Your task to perform on an android device: toggle translation in the chrome app Image 0: 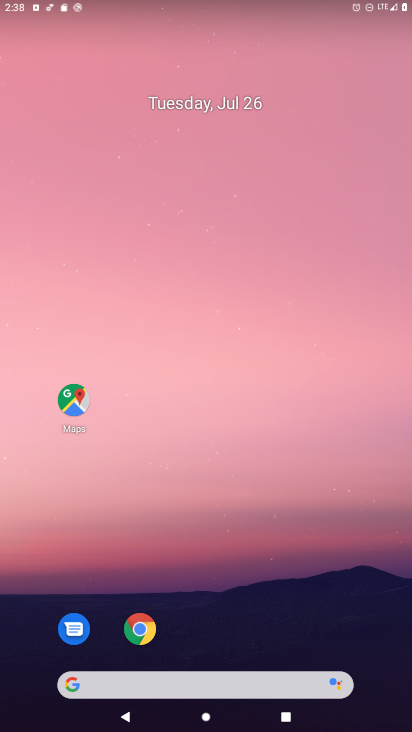
Step 0: click (140, 626)
Your task to perform on an android device: toggle translation in the chrome app Image 1: 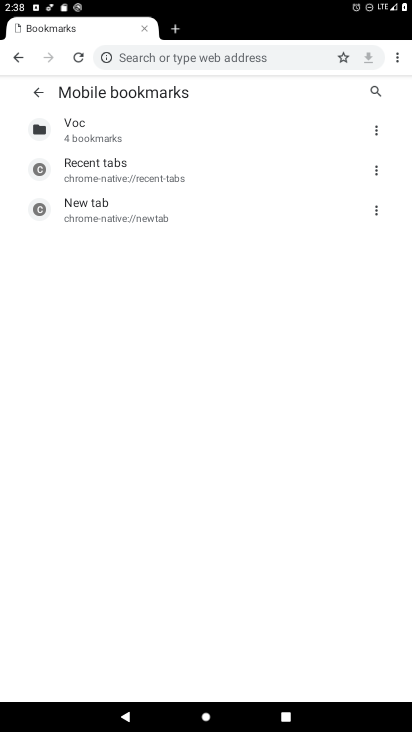
Step 1: click (397, 63)
Your task to perform on an android device: toggle translation in the chrome app Image 2: 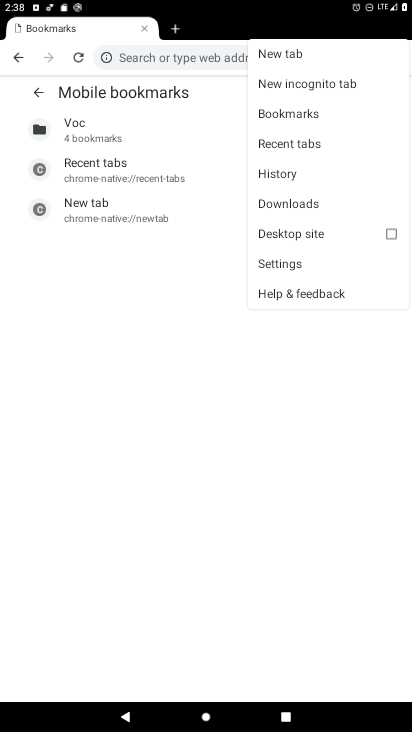
Step 2: click (284, 257)
Your task to perform on an android device: toggle translation in the chrome app Image 3: 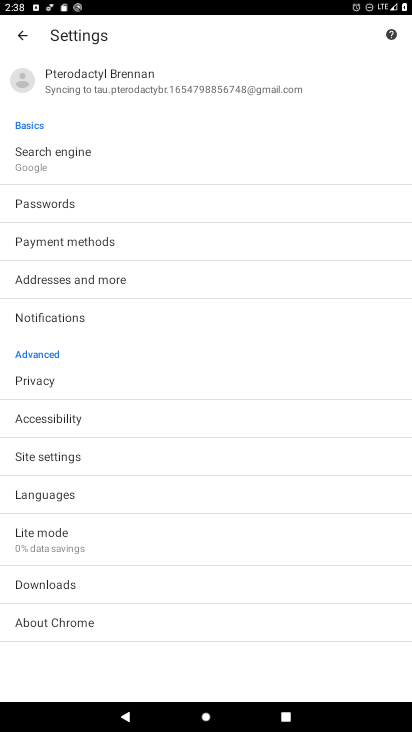
Step 3: click (47, 498)
Your task to perform on an android device: toggle translation in the chrome app Image 4: 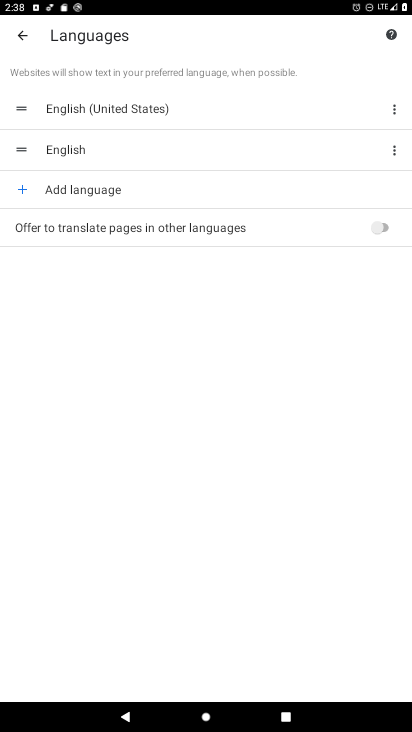
Step 4: click (385, 226)
Your task to perform on an android device: toggle translation in the chrome app Image 5: 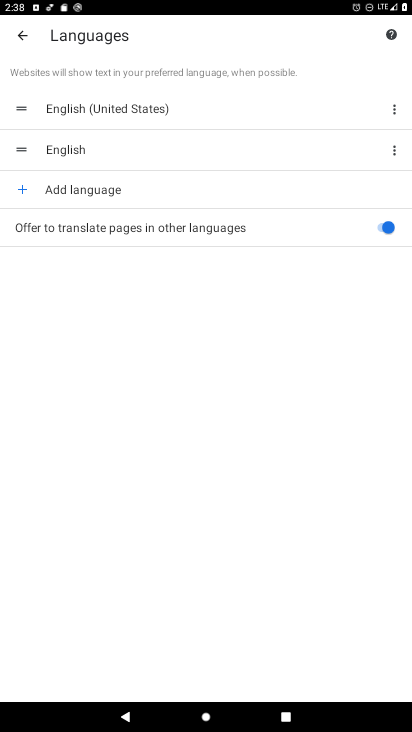
Step 5: task complete